Your task to perform on an android device: Open Google Image 0: 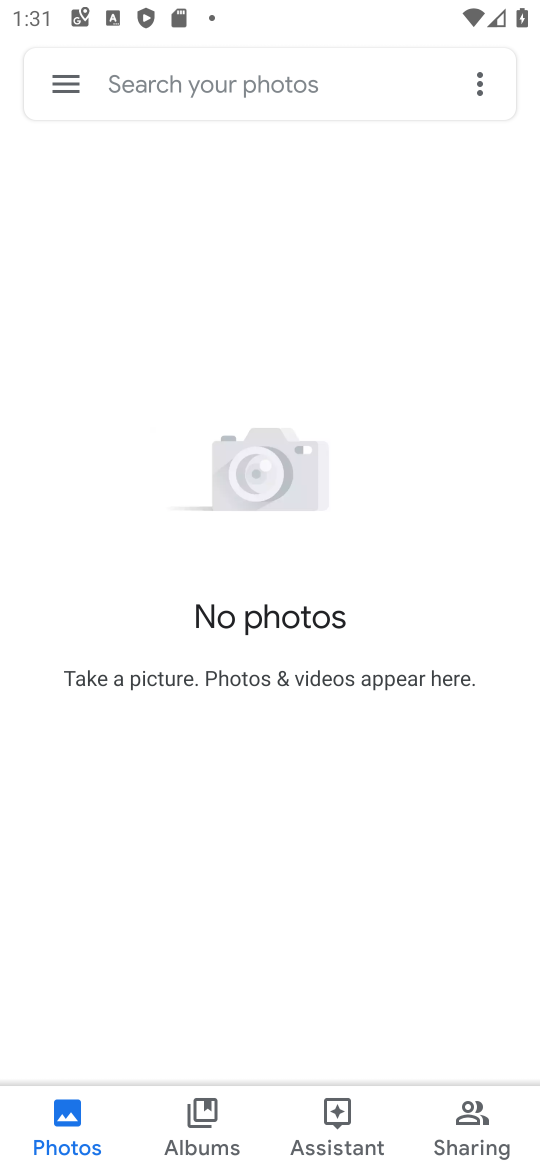
Step 0: press home button
Your task to perform on an android device: Open Google Image 1: 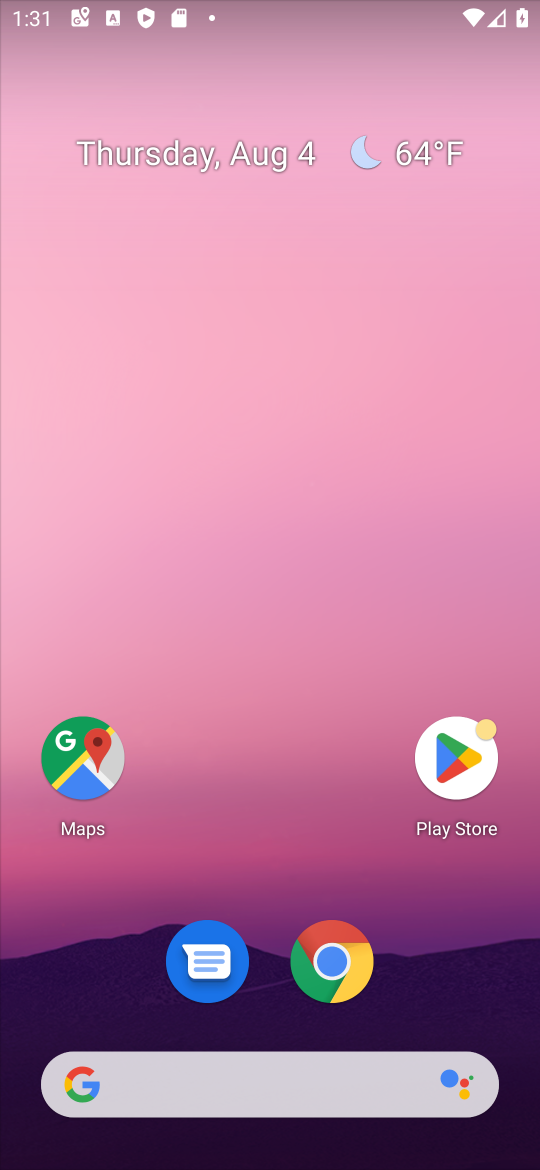
Step 1: click (216, 1099)
Your task to perform on an android device: Open Google Image 2: 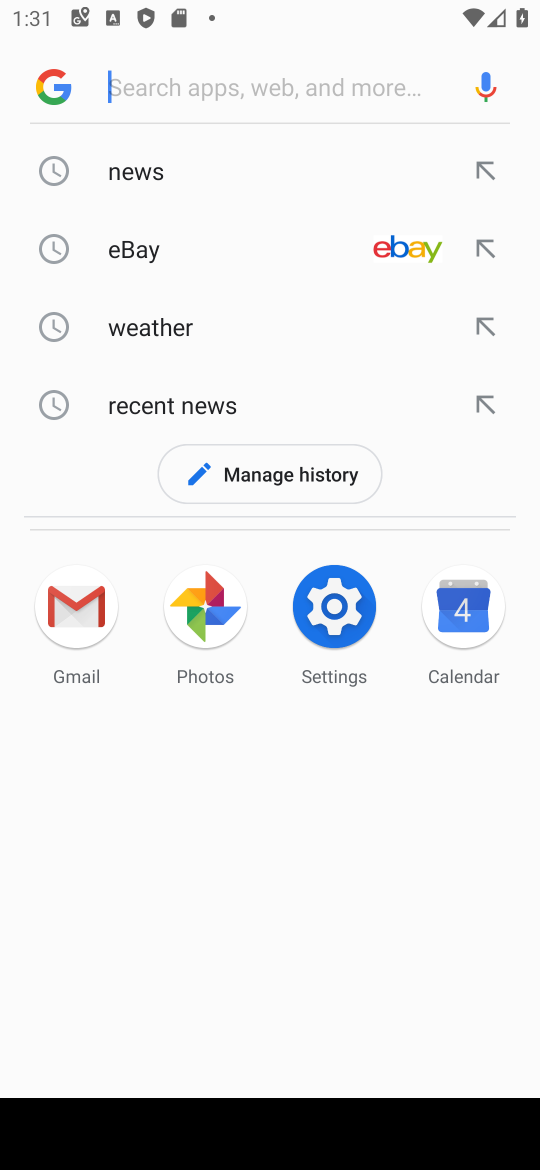
Step 2: click (58, 83)
Your task to perform on an android device: Open Google Image 3: 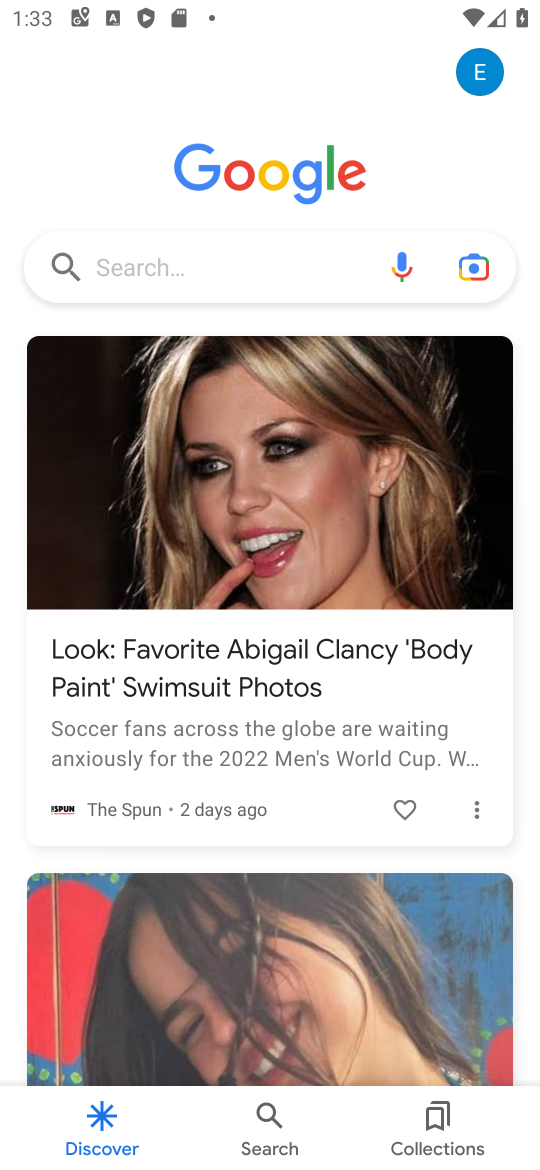
Step 3: task complete